Your task to perform on an android device: Go to Yahoo.com Image 0: 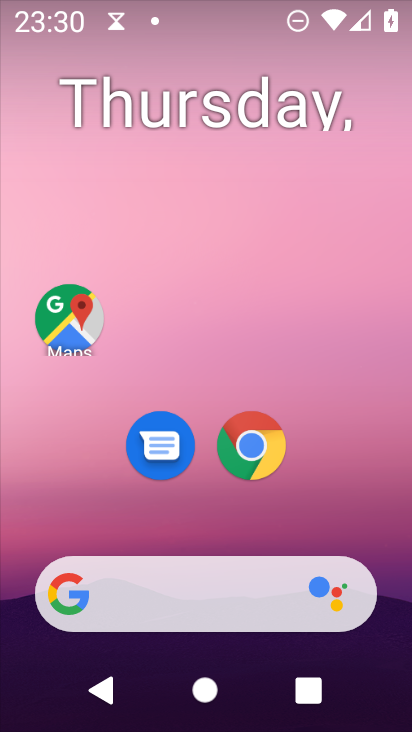
Step 0: click (252, 449)
Your task to perform on an android device: Go to Yahoo.com Image 1: 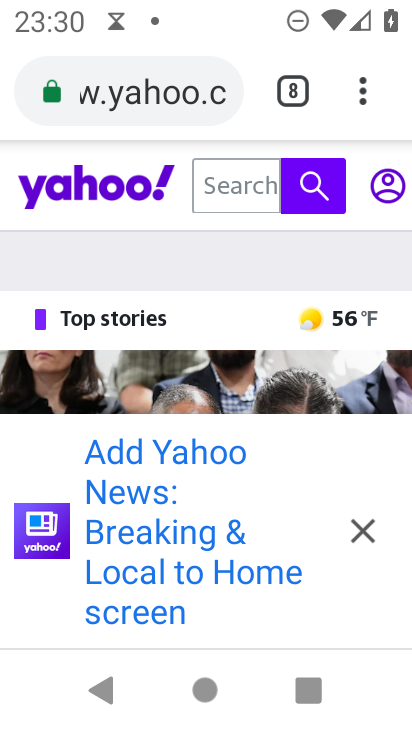
Step 1: task complete